Your task to perform on an android device: Open the map Image 0: 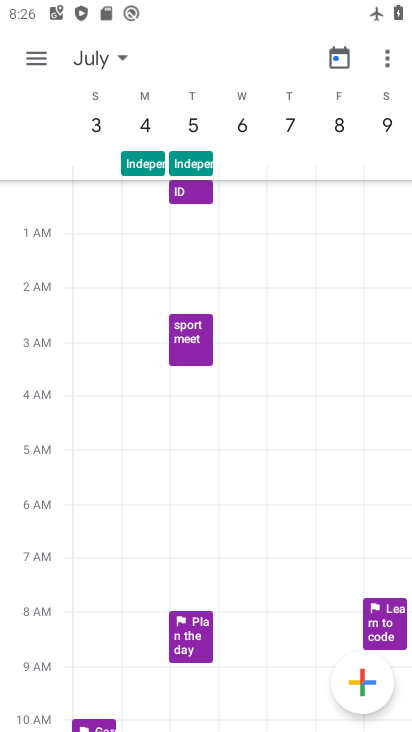
Step 0: press home button
Your task to perform on an android device: Open the map Image 1: 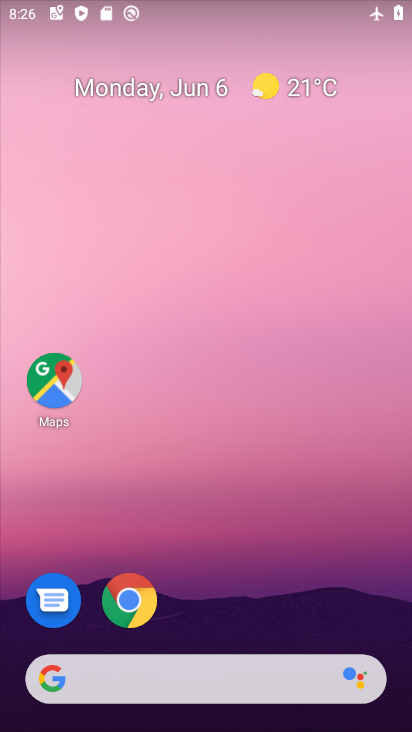
Step 1: click (55, 380)
Your task to perform on an android device: Open the map Image 2: 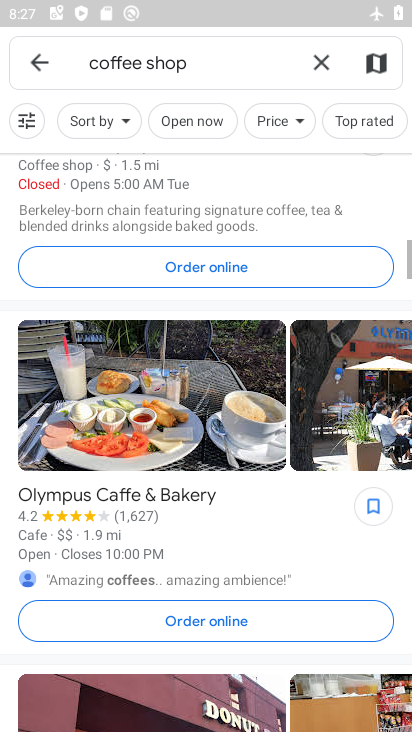
Step 2: click (316, 64)
Your task to perform on an android device: Open the map Image 3: 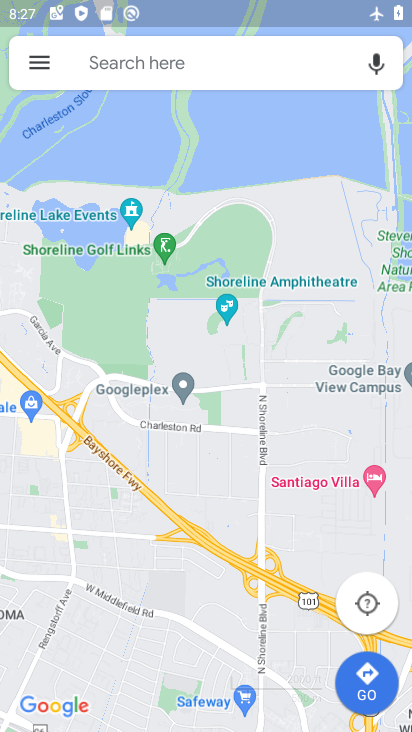
Step 3: task complete